Your task to perform on an android device: Open display settings Image 0: 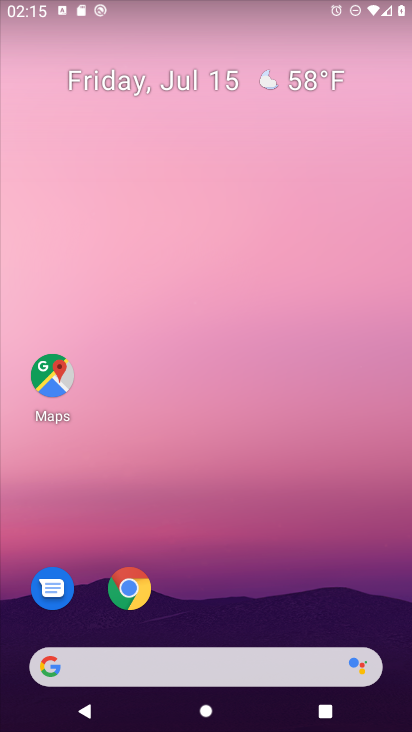
Step 0: drag from (393, 629) to (365, 99)
Your task to perform on an android device: Open display settings Image 1: 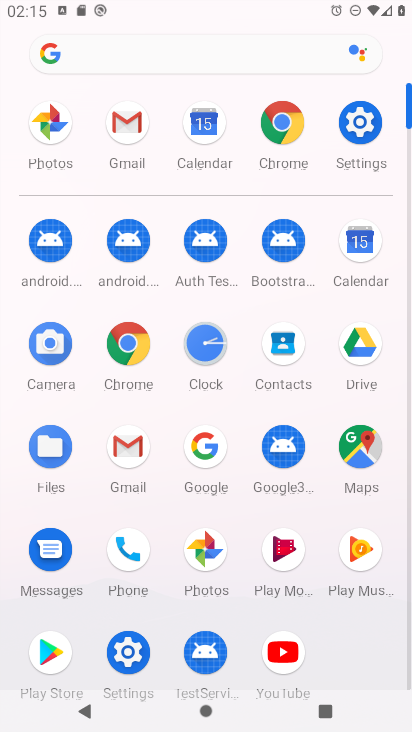
Step 1: click (125, 654)
Your task to perform on an android device: Open display settings Image 2: 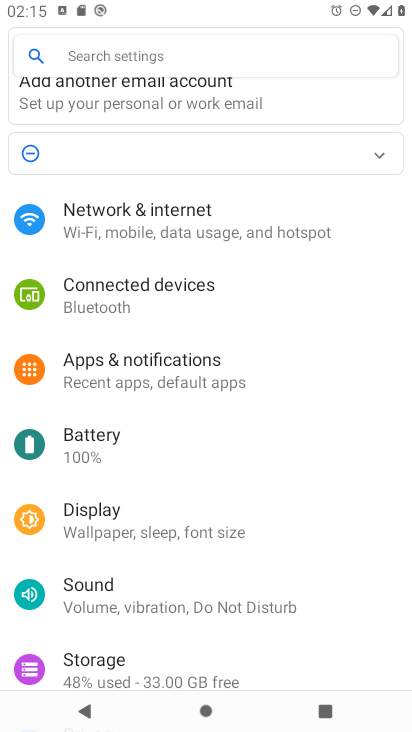
Step 2: click (103, 519)
Your task to perform on an android device: Open display settings Image 3: 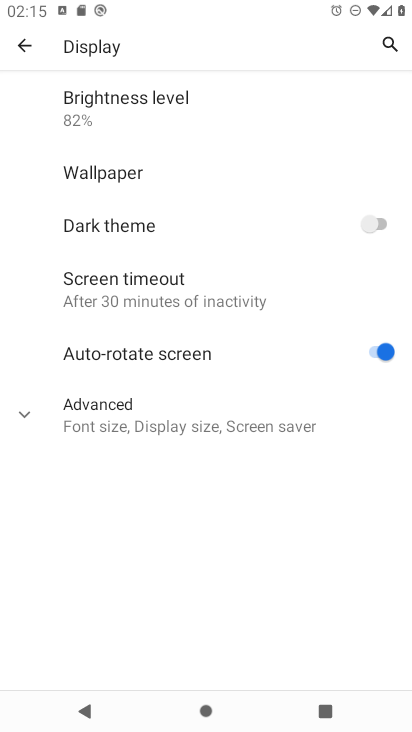
Step 3: click (23, 416)
Your task to perform on an android device: Open display settings Image 4: 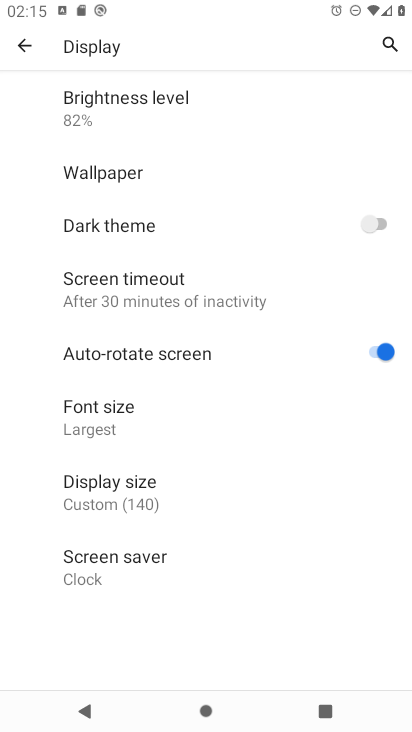
Step 4: task complete